Your task to perform on an android device: What's on my calendar today? Image 0: 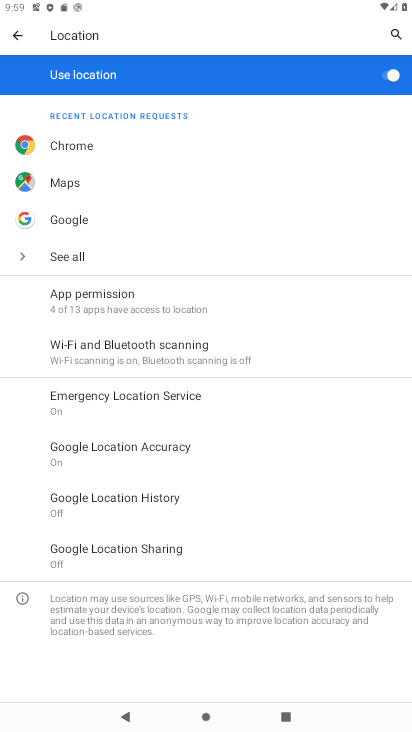
Step 0: press home button
Your task to perform on an android device: What's on my calendar today? Image 1: 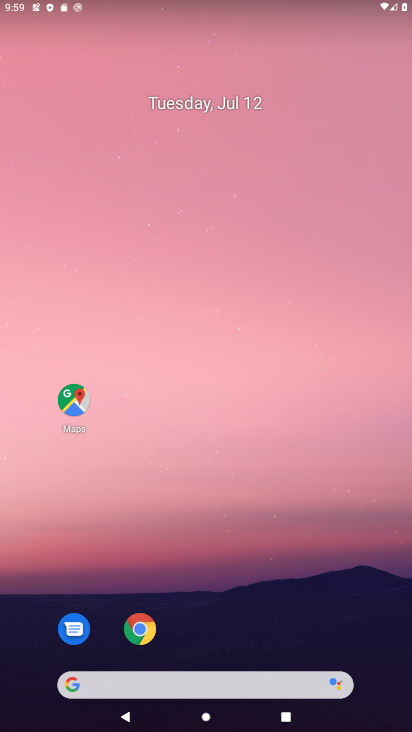
Step 1: drag from (104, 631) to (161, 195)
Your task to perform on an android device: What's on my calendar today? Image 2: 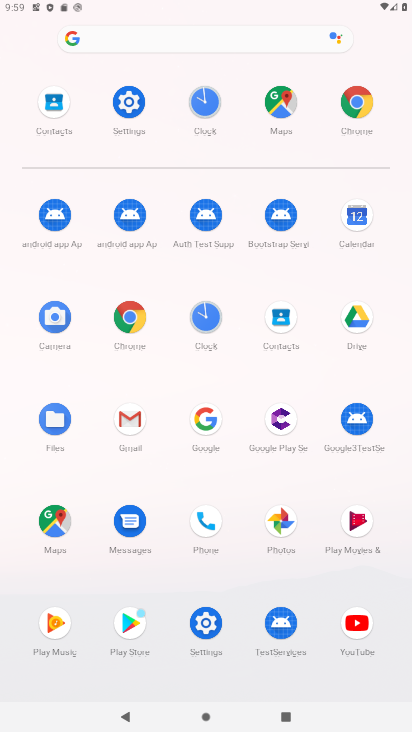
Step 2: click (350, 210)
Your task to perform on an android device: What's on my calendar today? Image 3: 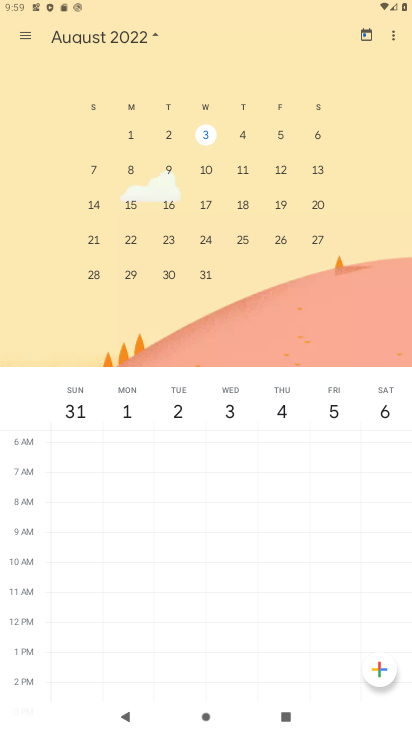
Step 3: drag from (51, 158) to (385, 182)
Your task to perform on an android device: What's on my calendar today? Image 4: 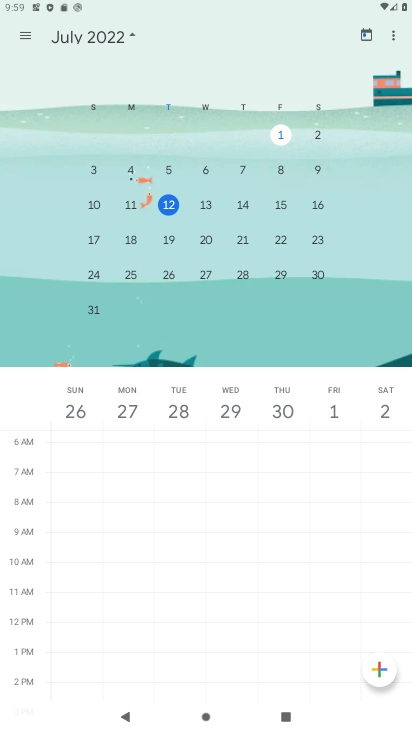
Step 4: click (167, 206)
Your task to perform on an android device: What's on my calendar today? Image 5: 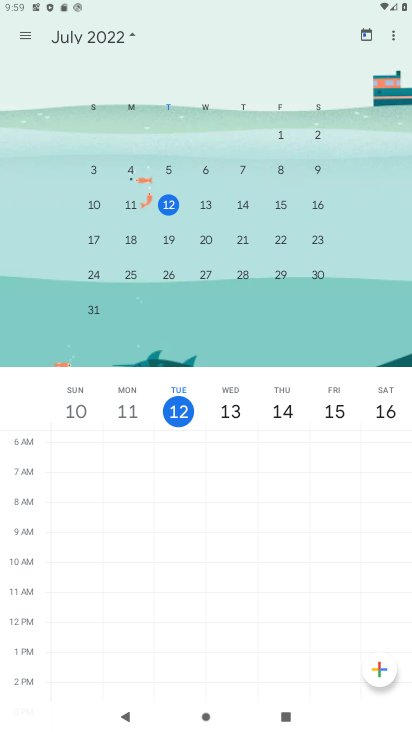
Step 5: task complete